Your task to perform on an android device: turn off location history Image 0: 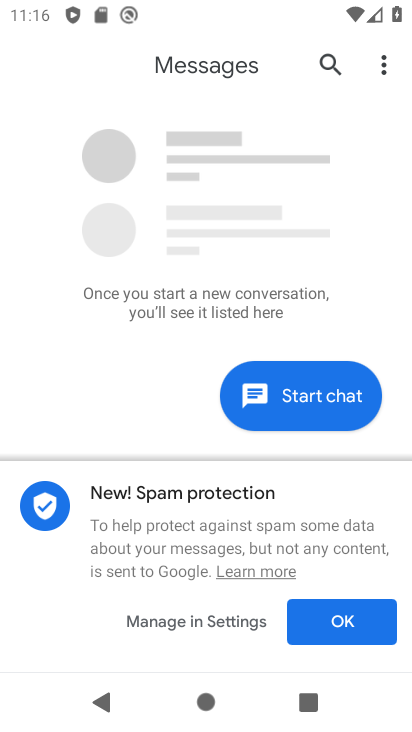
Step 0: press home button
Your task to perform on an android device: turn off location history Image 1: 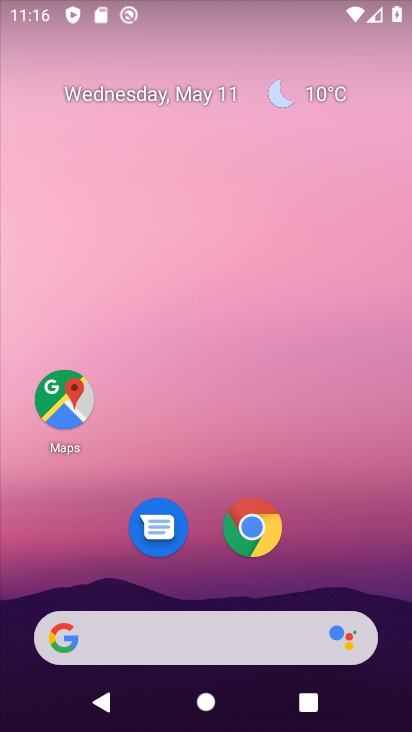
Step 1: drag from (203, 586) to (322, 12)
Your task to perform on an android device: turn off location history Image 2: 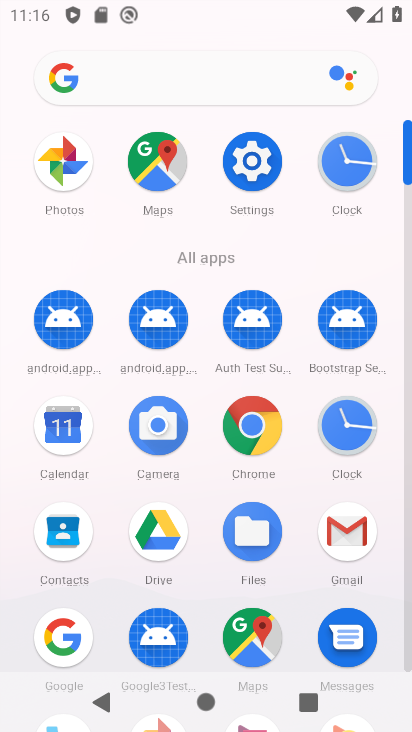
Step 2: click (254, 171)
Your task to perform on an android device: turn off location history Image 3: 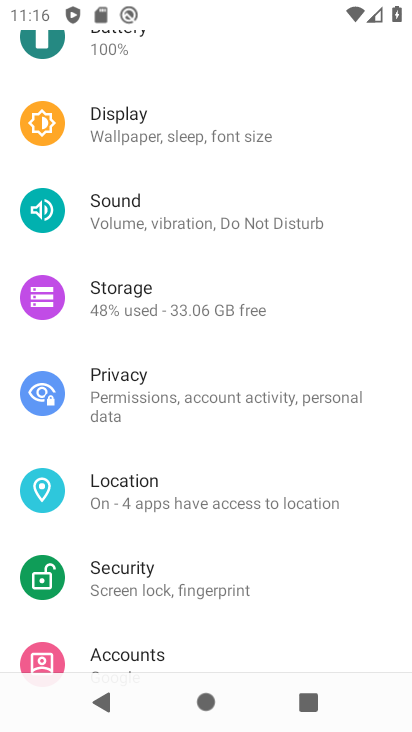
Step 3: click (144, 498)
Your task to perform on an android device: turn off location history Image 4: 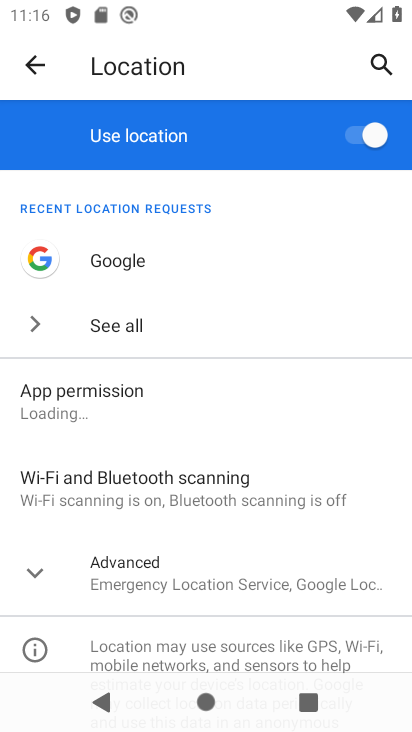
Step 4: drag from (125, 585) to (144, 481)
Your task to perform on an android device: turn off location history Image 5: 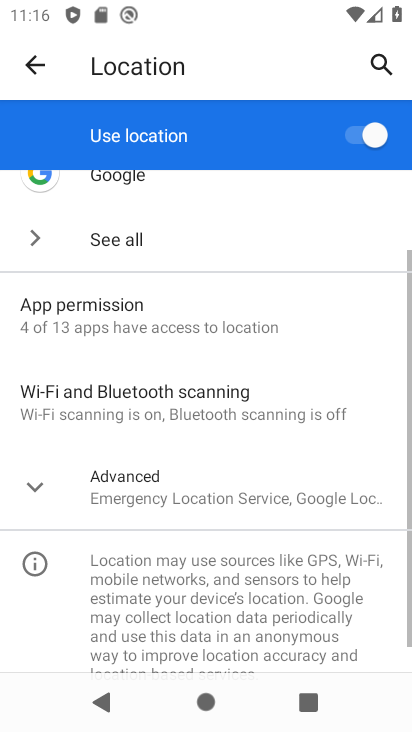
Step 5: click (144, 485)
Your task to perform on an android device: turn off location history Image 6: 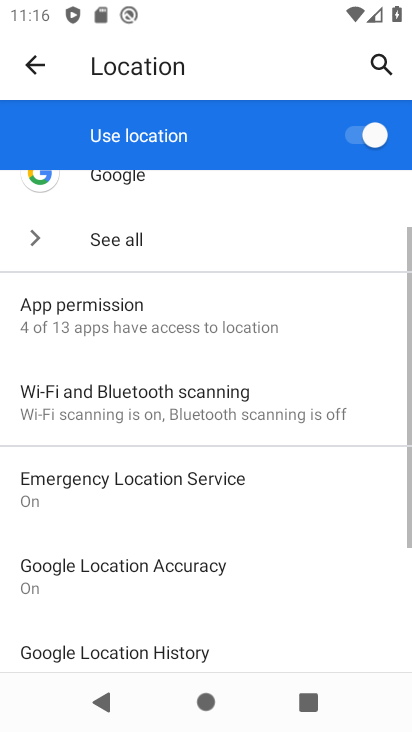
Step 6: drag from (156, 605) to (199, 342)
Your task to perform on an android device: turn off location history Image 7: 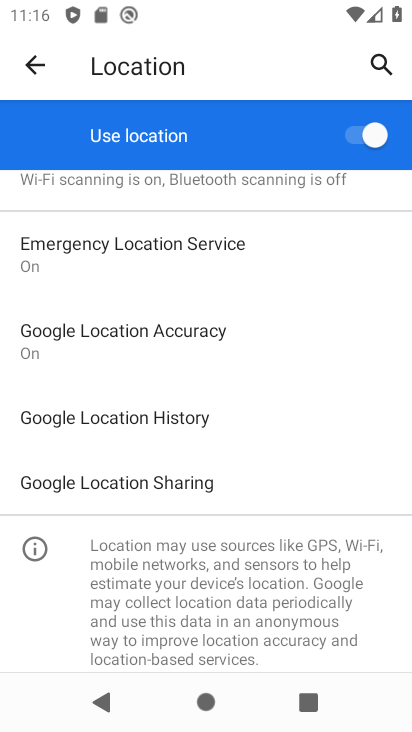
Step 7: click (156, 425)
Your task to perform on an android device: turn off location history Image 8: 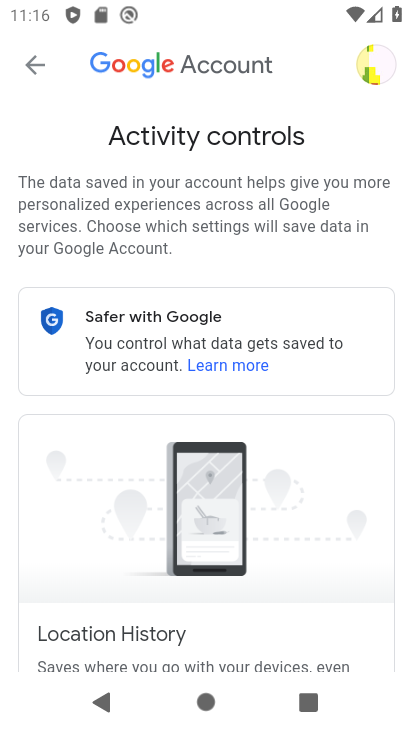
Step 8: task complete